Your task to perform on an android device: Open notification settings Image 0: 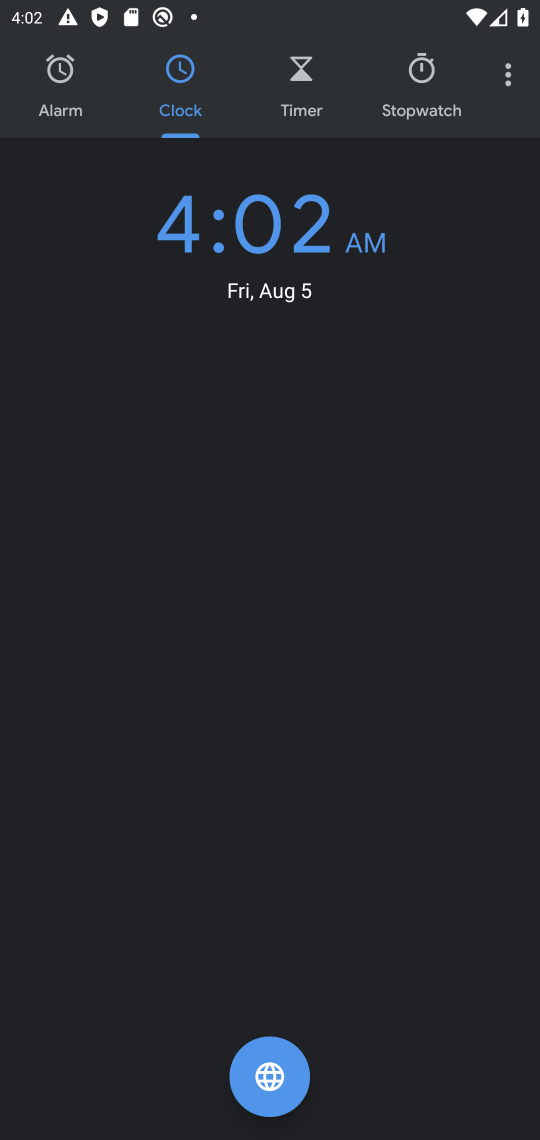
Step 0: press home button
Your task to perform on an android device: Open notification settings Image 1: 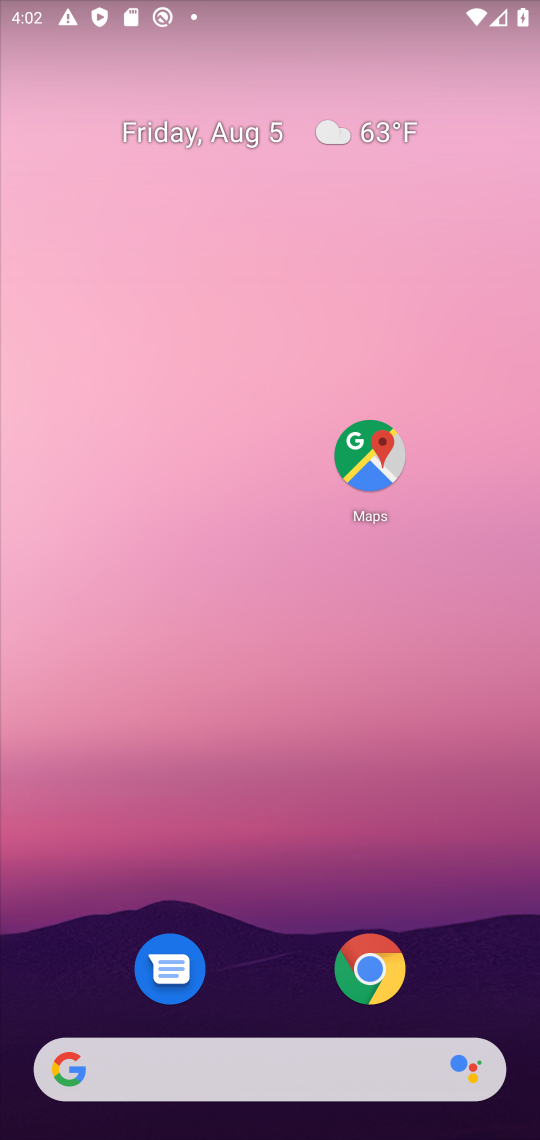
Step 1: drag from (276, 906) to (355, 214)
Your task to perform on an android device: Open notification settings Image 2: 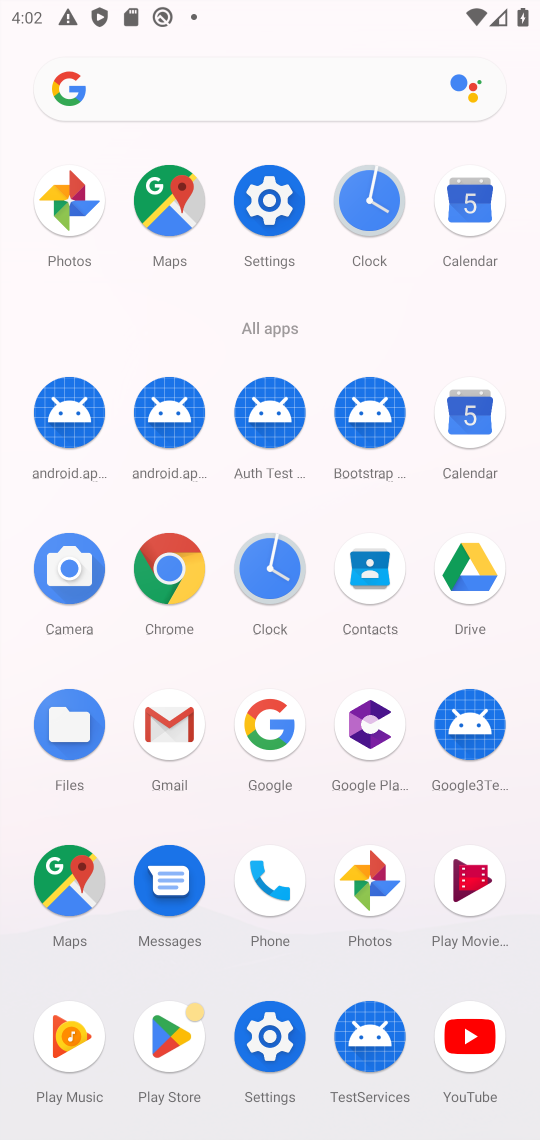
Step 2: drag from (259, 202) to (135, 277)
Your task to perform on an android device: Open notification settings Image 3: 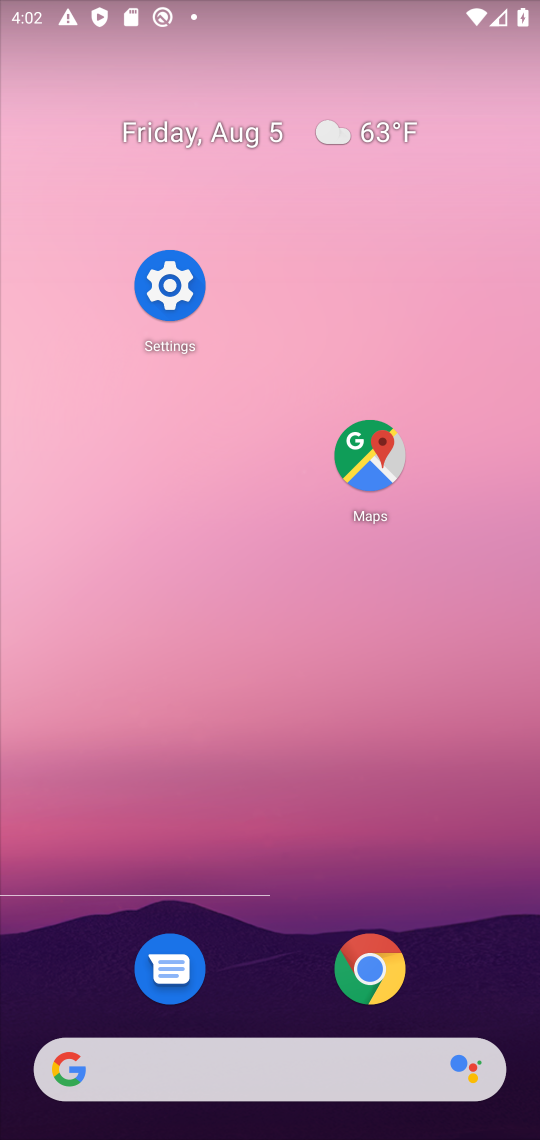
Step 3: click (158, 280)
Your task to perform on an android device: Open notification settings Image 4: 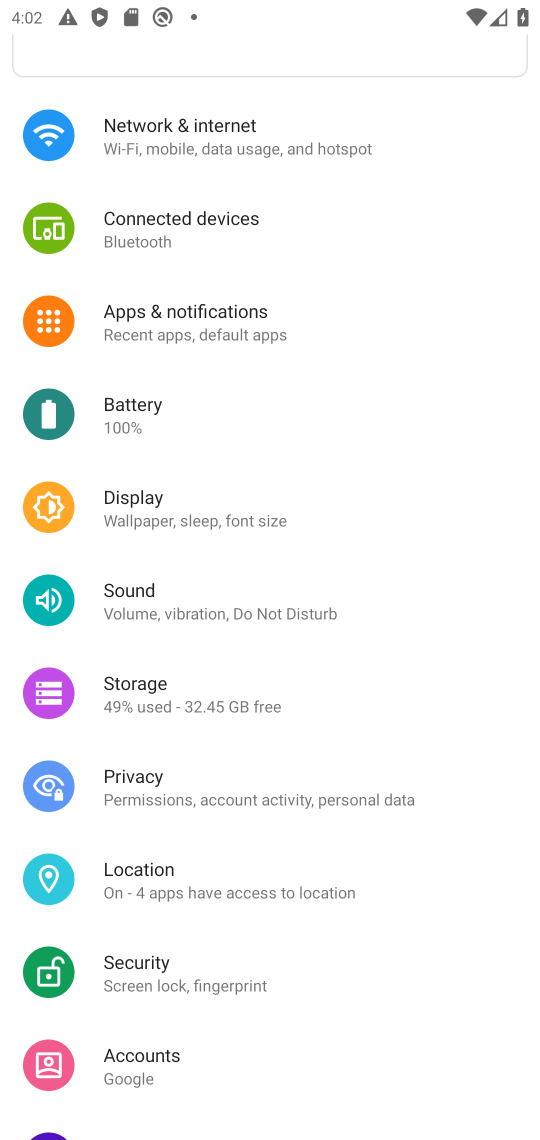
Step 4: click (228, 340)
Your task to perform on an android device: Open notification settings Image 5: 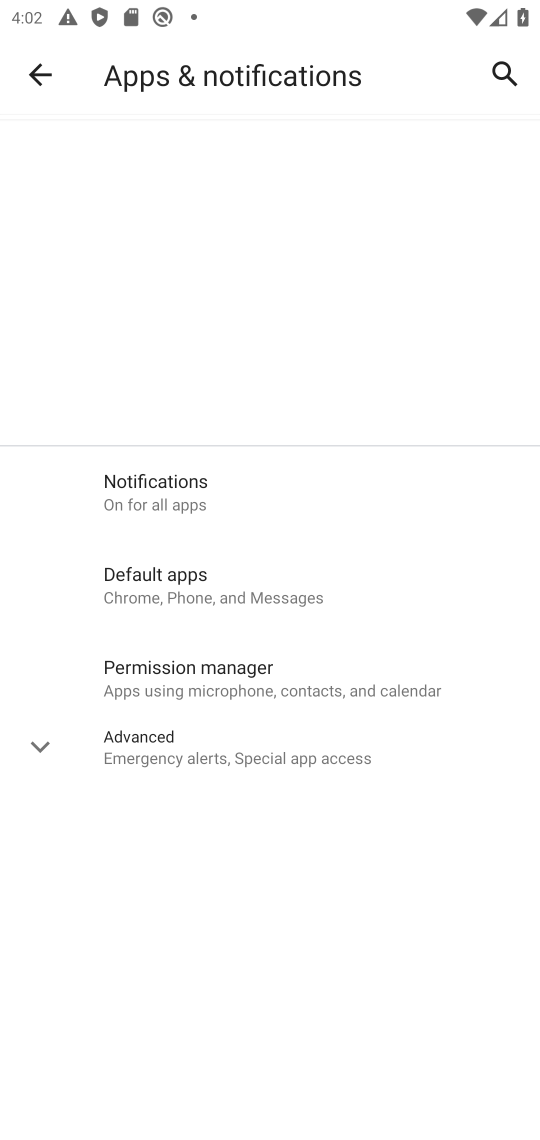
Step 5: task complete